Your task to perform on an android device: set an alarm Image 0: 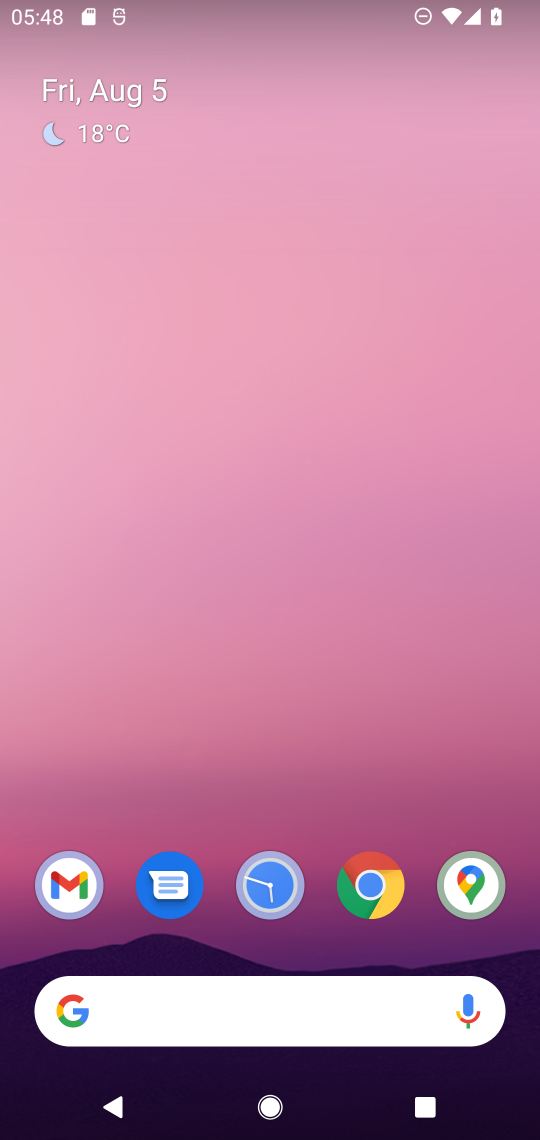
Step 0: drag from (314, 855) to (319, 152)
Your task to perform on an android device: set an alarm Image 1: 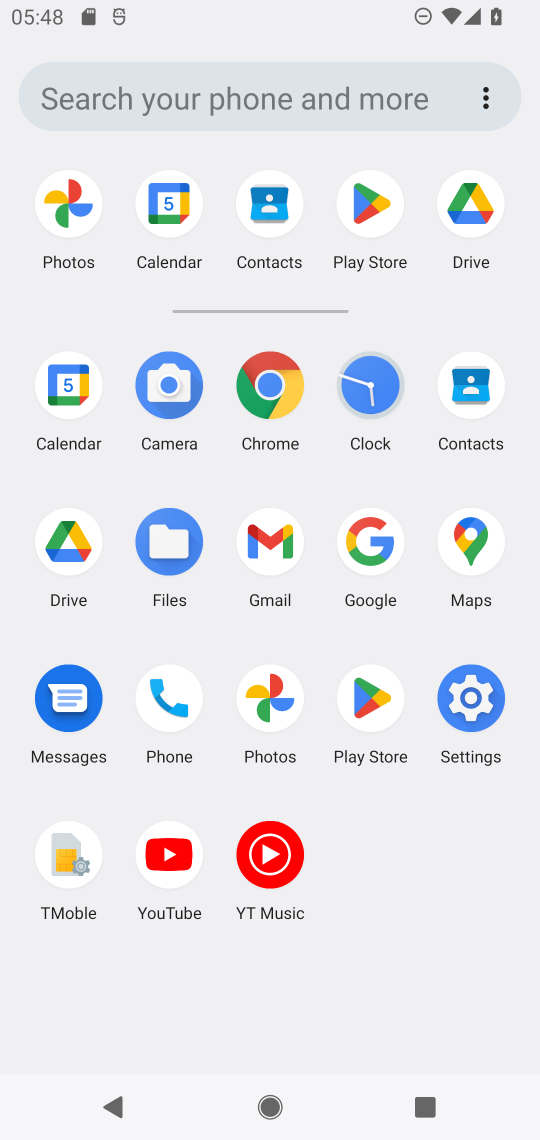
Step 1: click (371, 389)
Your task to perform on an android device: set an alarm Image 2: 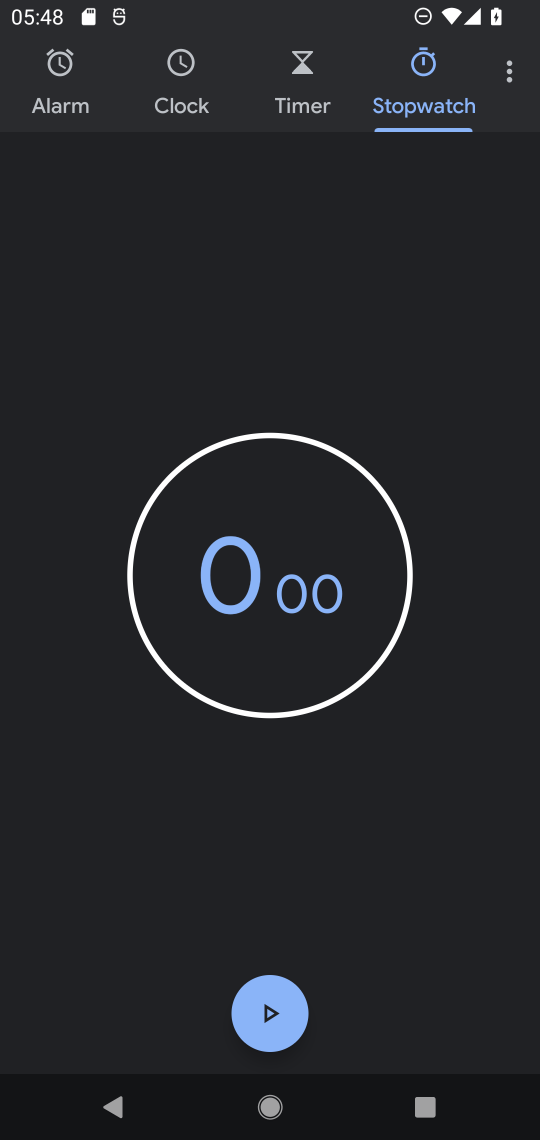
Step 2: click (64, 86)
Your task to perform on an android device: set an alarm Image 3: 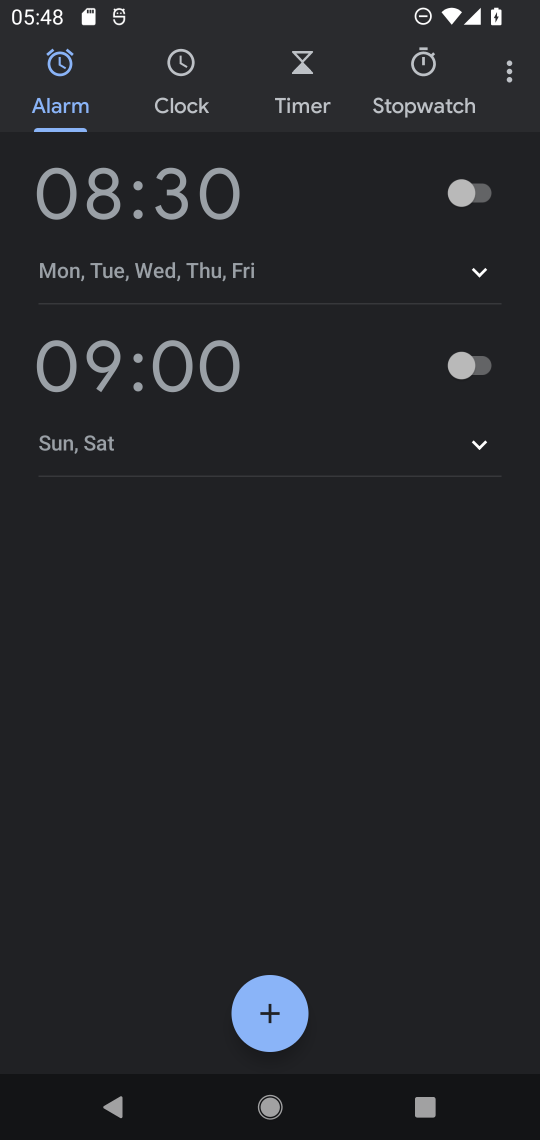
Step 3: click (275, 1010)
Your task to perform on an android device: set an alarm Image 4: 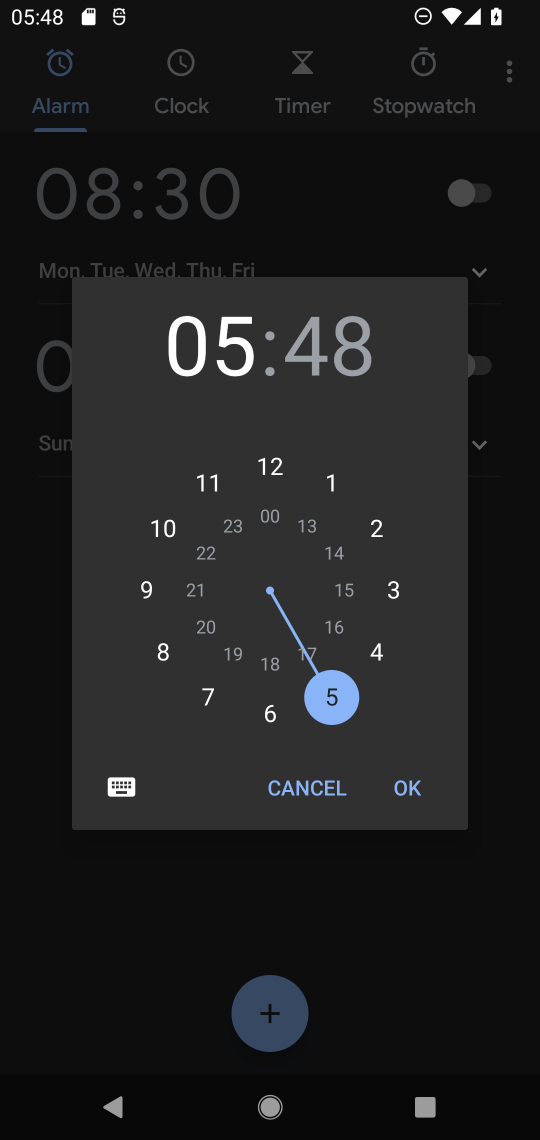
Step 4: click (164, 514)
Your task to perform on an android device: set an alarm Image 5: 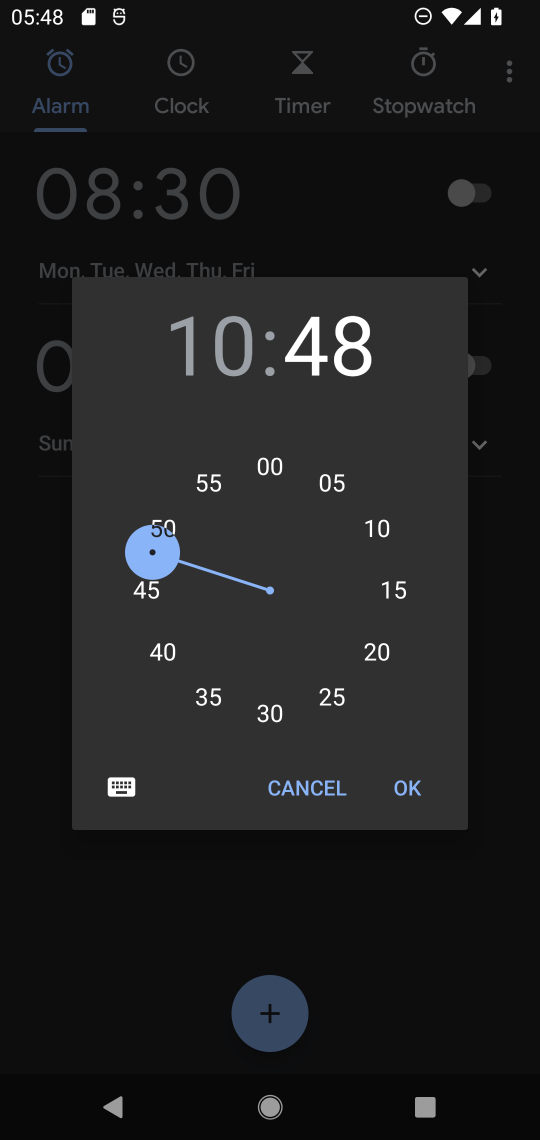
Step 5: click (414, 785)
Your task to perform on an android device: set an alarm Image 6: 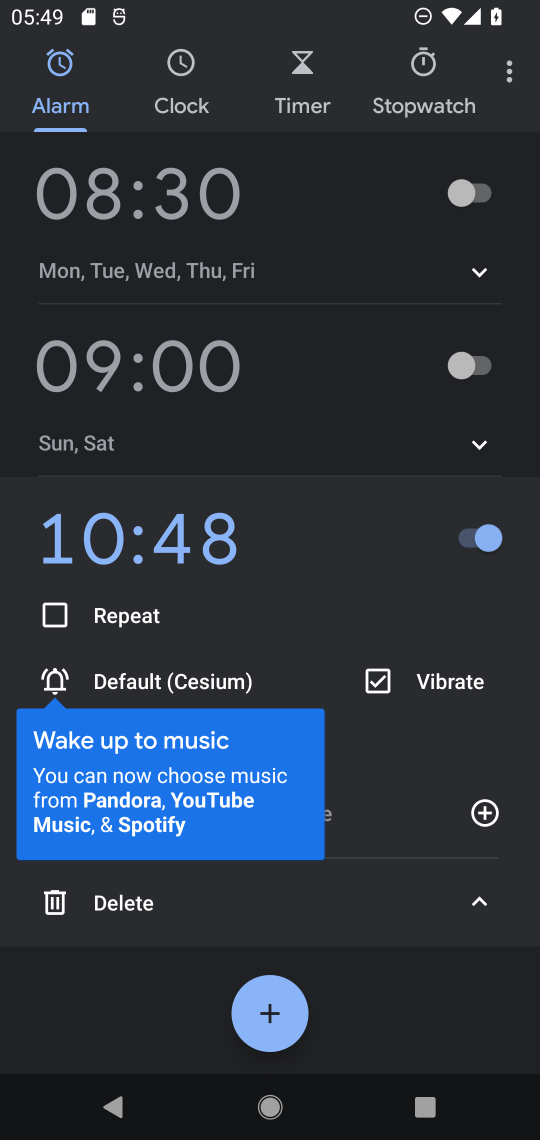
Step 6: task complete